Your task to perform on an android device: Go to battery settings Image 0: 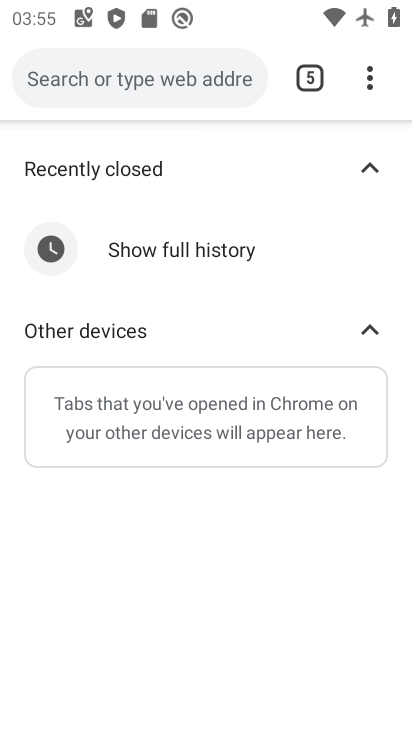
Step 0: press home button
Your task to perform on an android device: Go to battery settings Image 1: 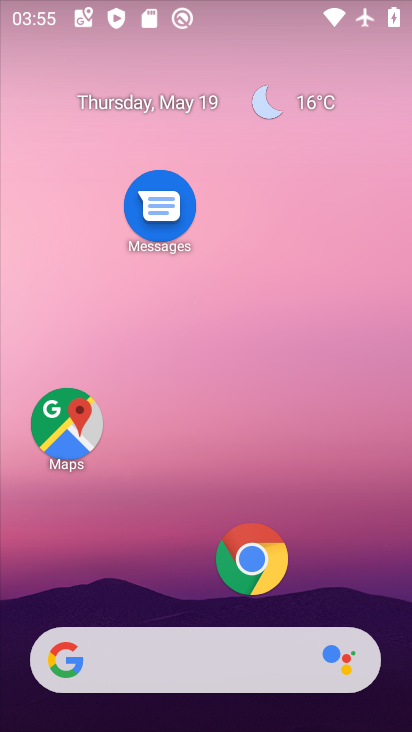
Step 1: drag from (215, 478) to (270, 133)
Your task to perform on an android device: Go to battery settings Image 2: 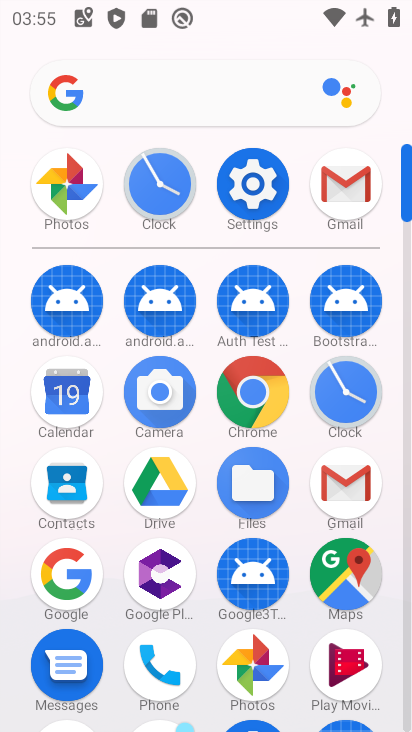
Step 2: click (252, 166)
Your task to perform on an android device: Go to battery settings Image 3: 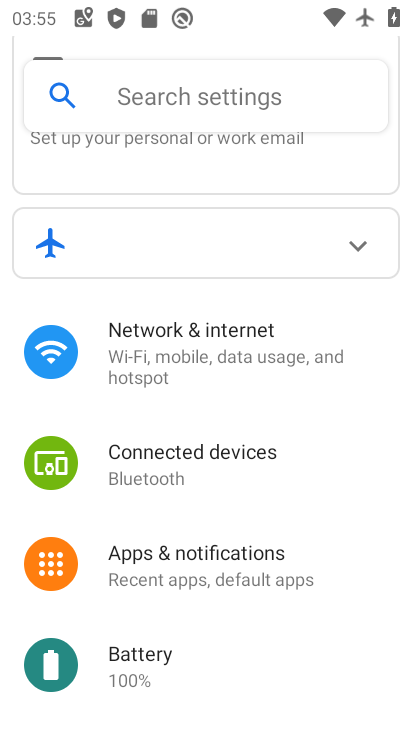
Step 3: drag from (233, 595) to (264, 279)
Your task to perform on an android device: Go to battery settings Image 4: 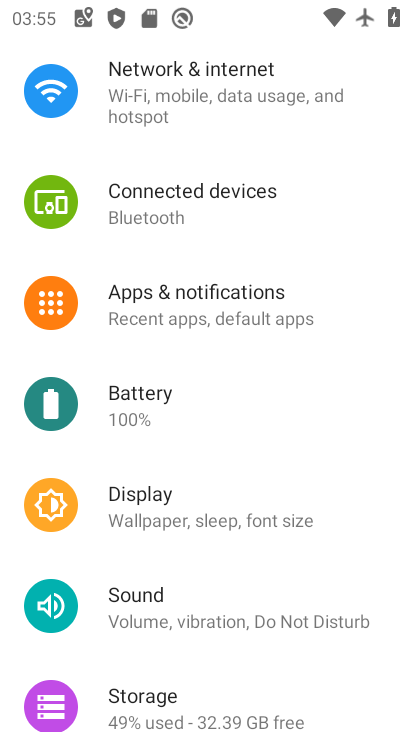
Step 4: click (197, 417)
Your task to perform on an android device: Go to battery settings Image 5: 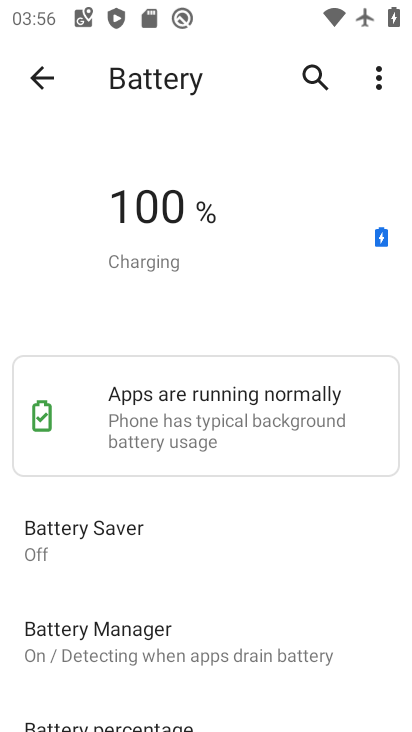
Step 5: task complete